Your task to perform on an android device: clear history in the chrome app Image 0: 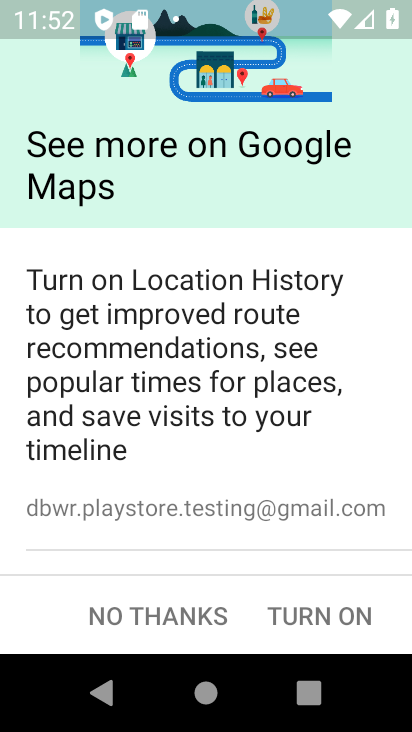
Step 0: press back button
Your task to perform on an android device: clear history in the chrome app Image 1: 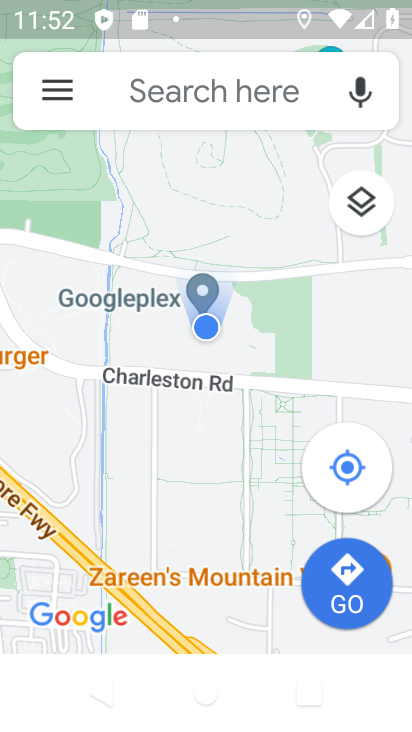
Step 1: press back button
Your task to perform on an android device: clear history in the chrome app Image 2: 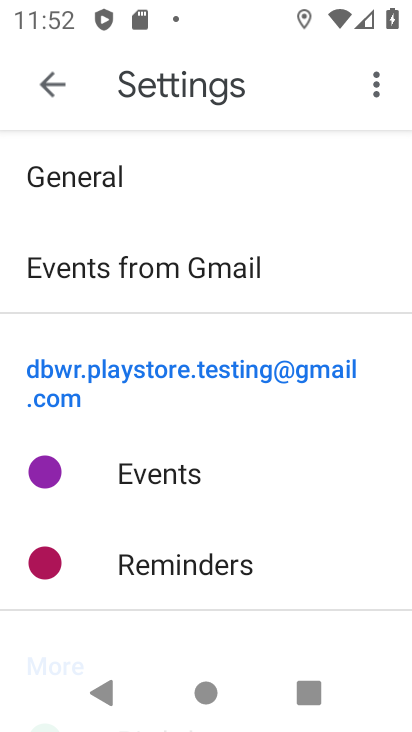
Step 2: press home button
Your task to perform on an android device: clear history in the chrome app Image 3: 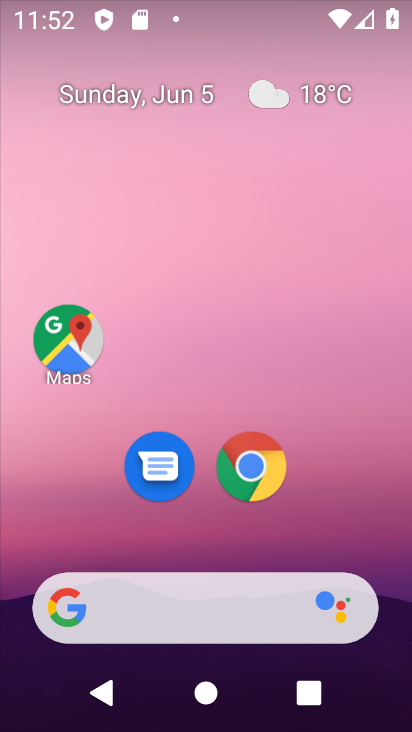
Step 3: drag from (337, 525) to (219, 37)
Your task to perform on an android device: clear history in the chrome app Image 4: 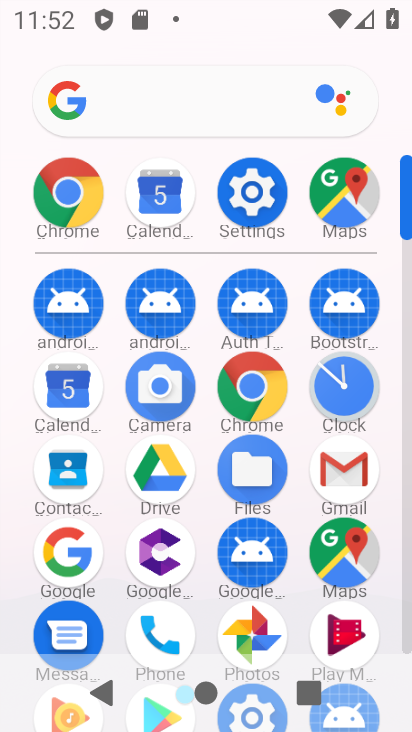
Step 4: click (67, 188)
Your task to perform on an android device: clear history in the chrome app Image 5: 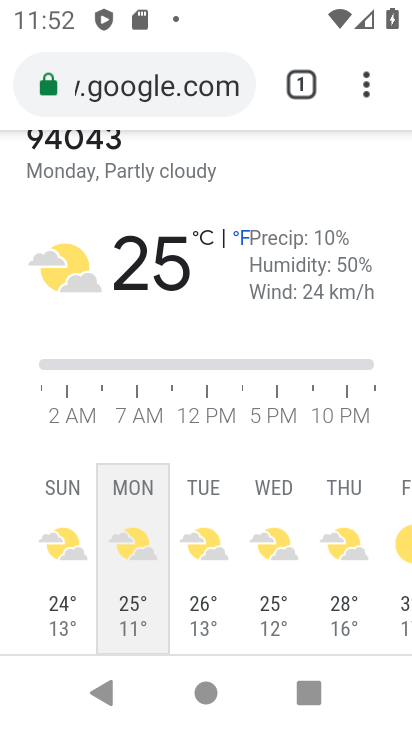
Step 5: drag from (362, 74) to (186, 386)
Your task to perform on an android device: clear history in the chrome app Image 6: 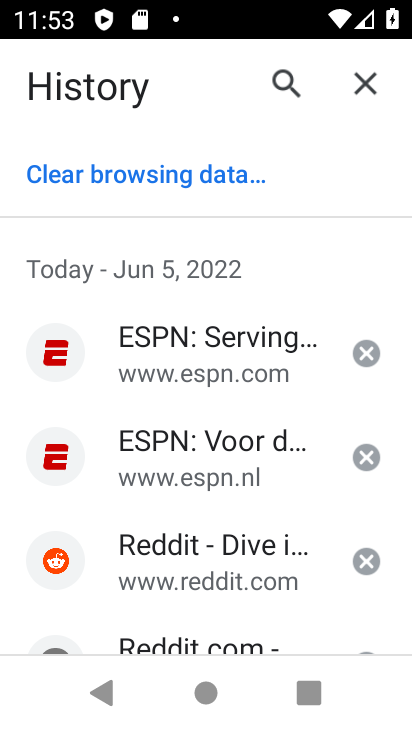
Step 6: click (176, 158)
Your task to perform on an android device: clear history in the chrome app Image 7: 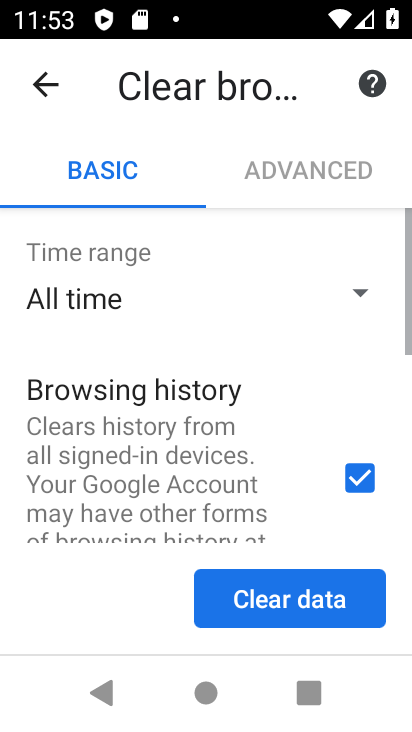
Step 7: click (302, 588)
Your task to perform on an android device: clear history in the chrome app Image 8: 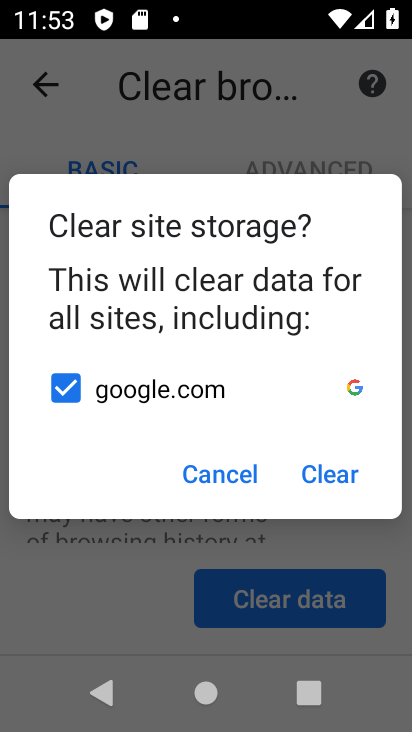
Step 8: click (335, 475)
Your task to perform on an android device: clear history in the chrome app Image 9: 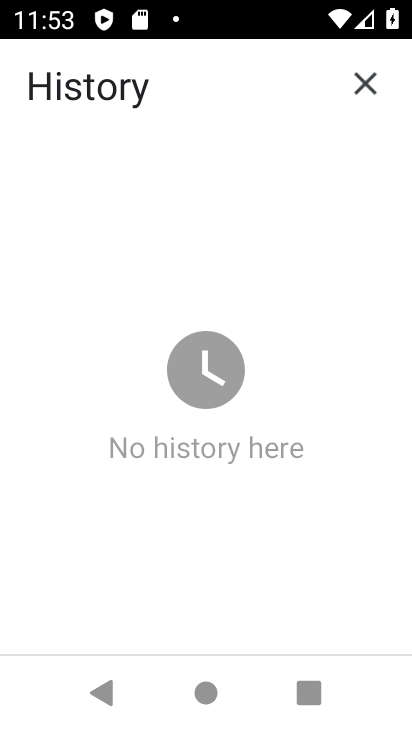
Step 9: task complete